Your task to perform on an android device: remove spam from my inbox in the gmail app Image 0: 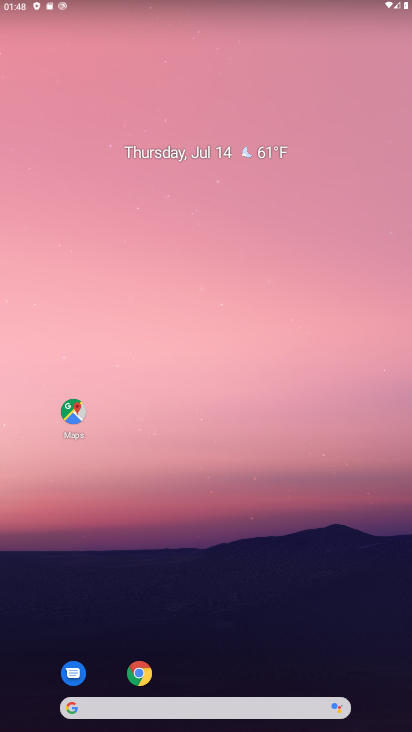
Step 0: drag from (234, 668) to (225, 129)
Your task to perform on an android device: remove spam from my inbox in the gmail app Image 1: 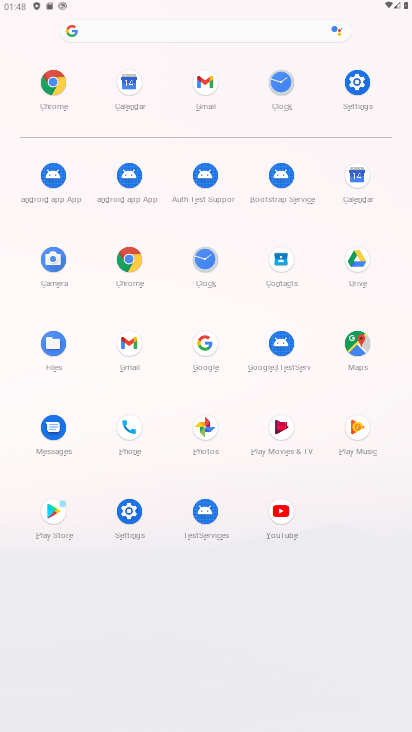
Step 1: click (199, 79)
Your task to perform on an android device: remove spam from my inbox in the gmail app Image 2: 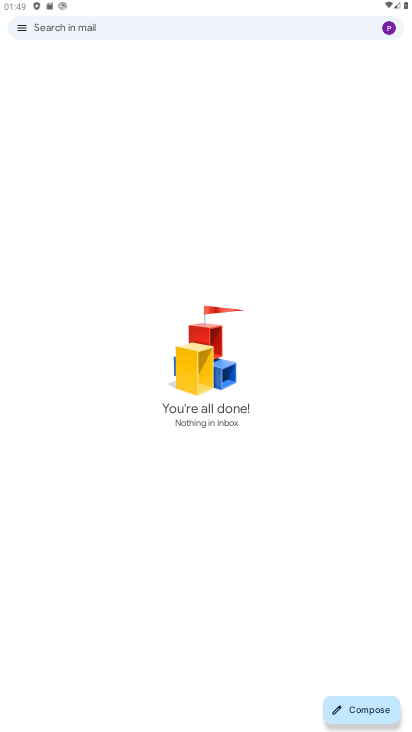
Step 2: click (23, 29)
Your task to perform on an android device: remove spam from my inbox in the gmail app Image 3: 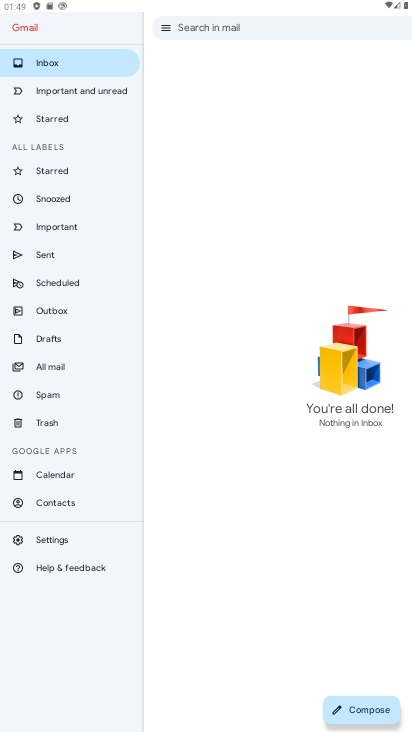
Step 3: click (42, 388)
Your task to perform on an android device: remove spam from my inbox in the gmail app Image 4: 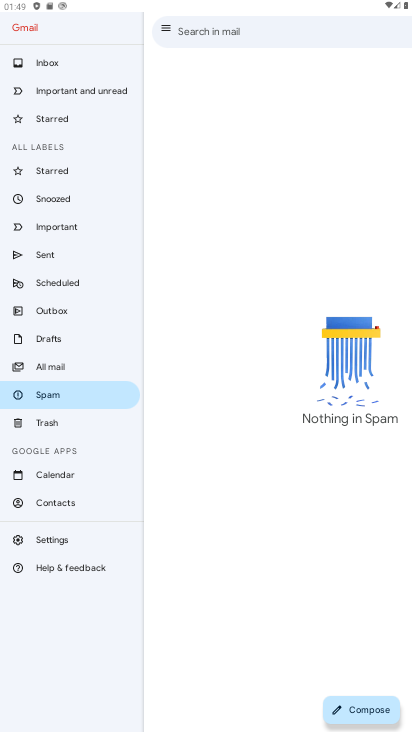
Step 4: task complete